Your task to perform on an android device: change text size in settings app Image 0: 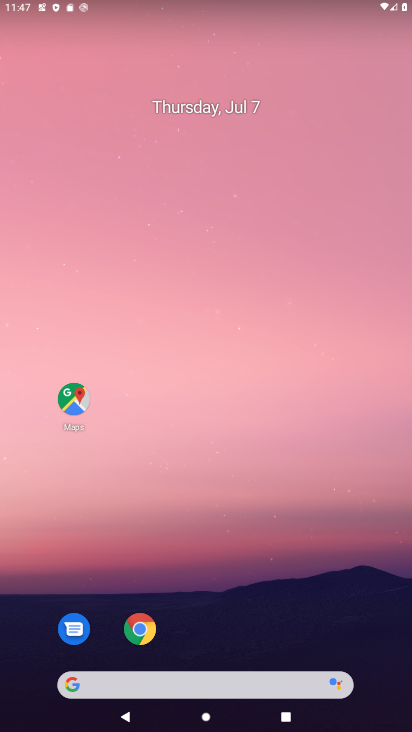
Step 0: drag from (324, 516) to (267, 55)
Your task to perform on an android device: change text size in settings app Image 1: 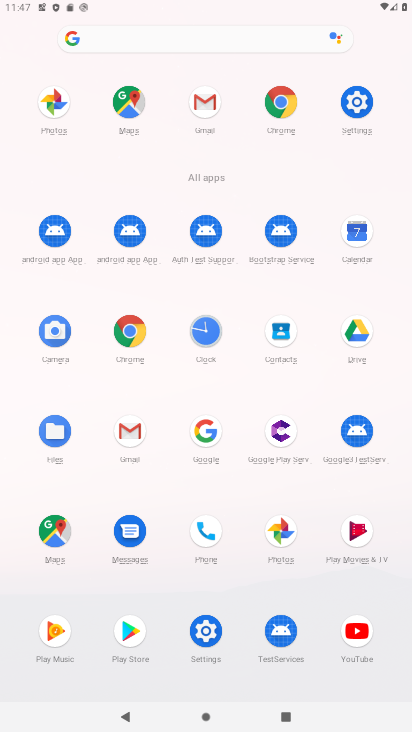
Step 1: click (206, 632)
Your task to perform on an android device: change text size in settings app Image 2: 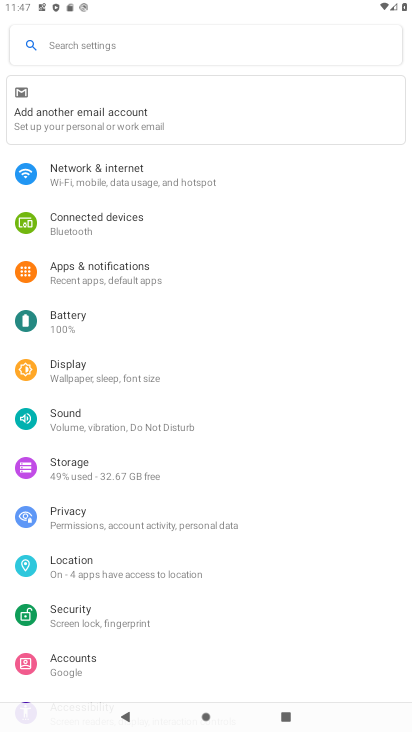
Step 2: click (71, 368)
Your task to perform on an android device: change text size in settings app Image 3: 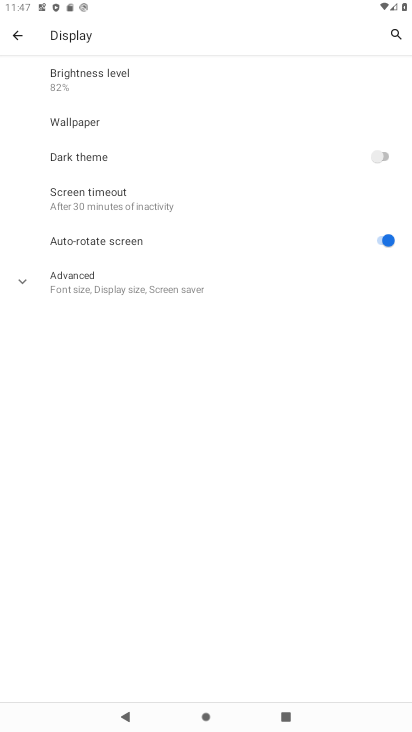
Step 3: click (32, 286)
Your task to perform on an android device: change text size in settings app Image 4: 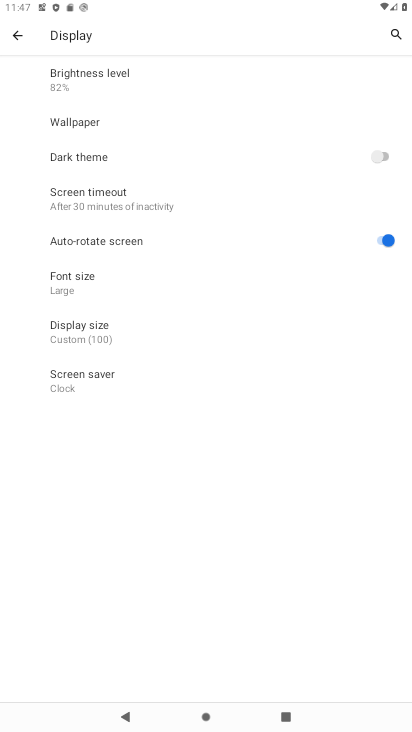
Step 4: click (73, 283)
Your task to perform on an android device: change text size in settings app Image 5: 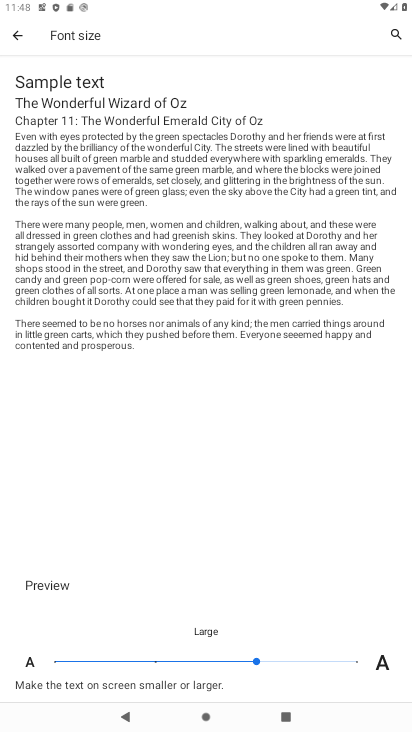
Step 5: click (354, 663)
Your task to perform on an android device: change text size in settings app Image 6: 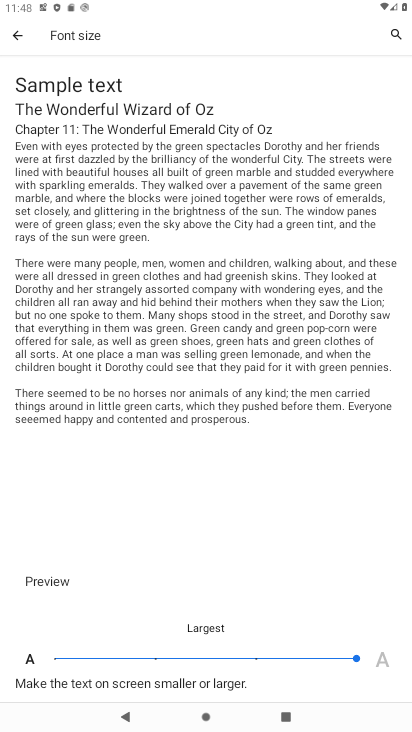
Step 6: task complete